Your task to perform on an android device: Open Google Chrome and click the shortcut for Amazon.com Image 0: 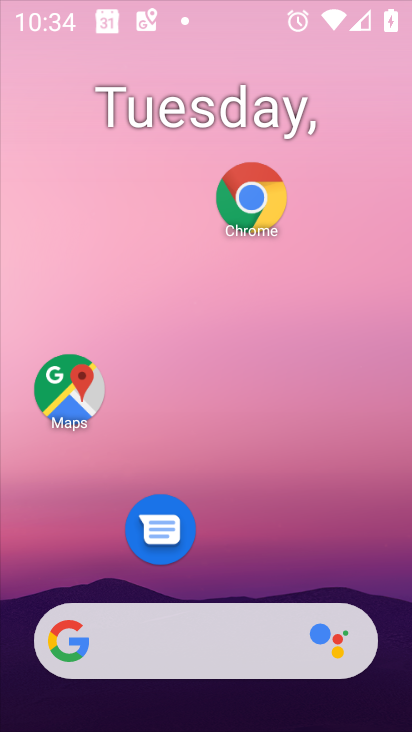
Step 0: drag from (356, 535) to (349, 238)
Your task to perform on an android device: Open Google Chrome and click the shortcut for Amazon.com Image 1: 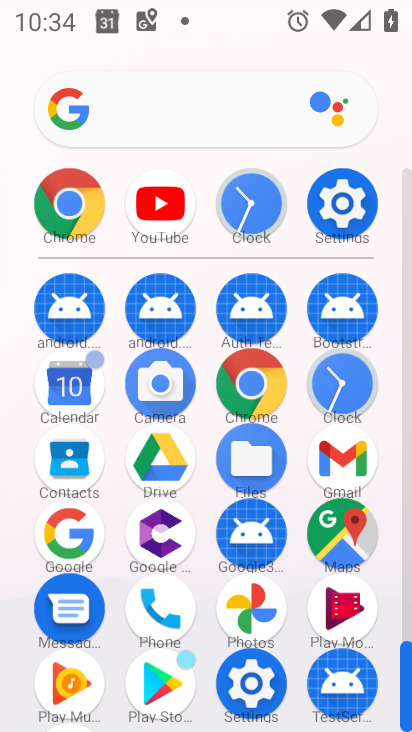
Step 1: click (89, 239)
Your task to perform on an android device: Open Google Chrome and click the shortcut for Amazon.com Image 2: 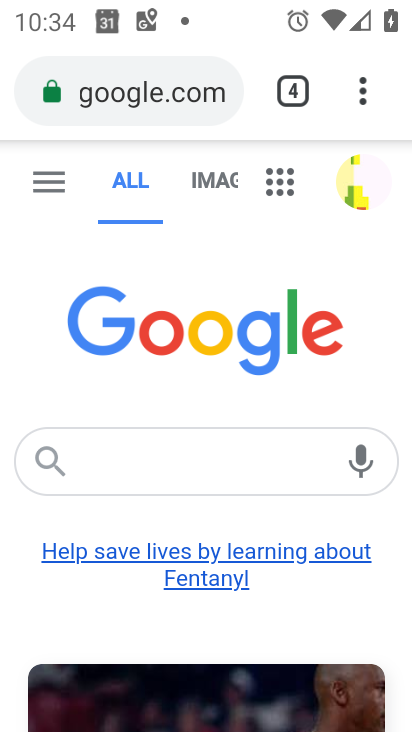
Step 2: click (183, 93)
Your task to perform on an android device: Open Google Chrome and click the shortcut for Amazon.com Image 3: 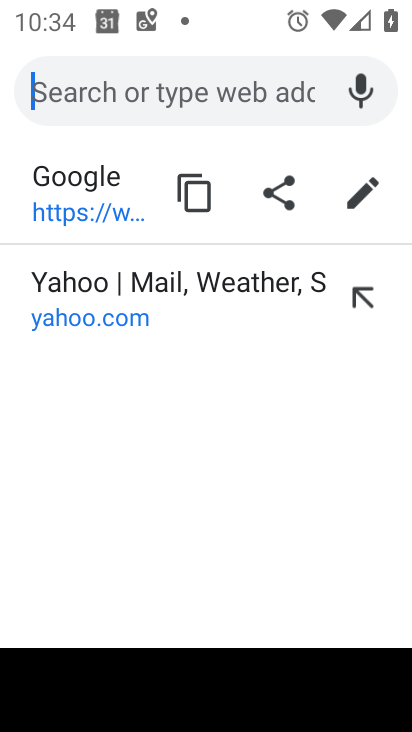
Step 3: type "amazon"
Your task to perform on an android device: Open Google Chrome and click the shortcut for Amazon.com Image 4: 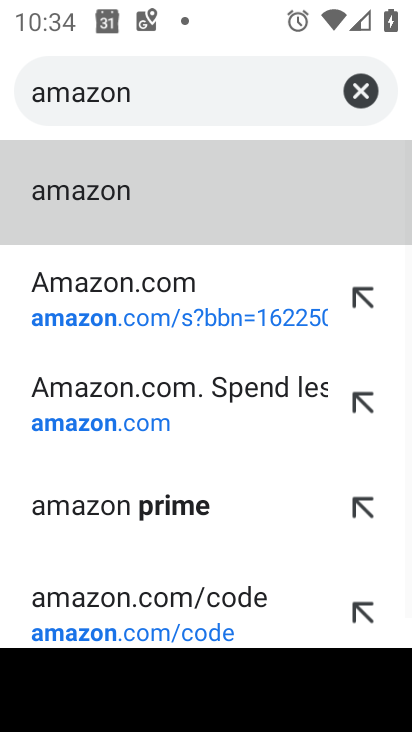
Step 4: click (150, 268)
Your task to perform on an android device: Open Google Chrome and click the shortcut for Amazon.com Image 5: 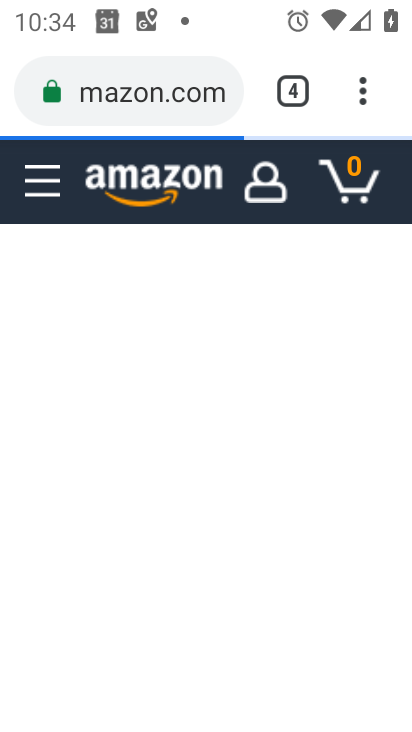
Step 5: task complete